Your task to perform on an android device: turn on javascript in the chrome app Image 0: 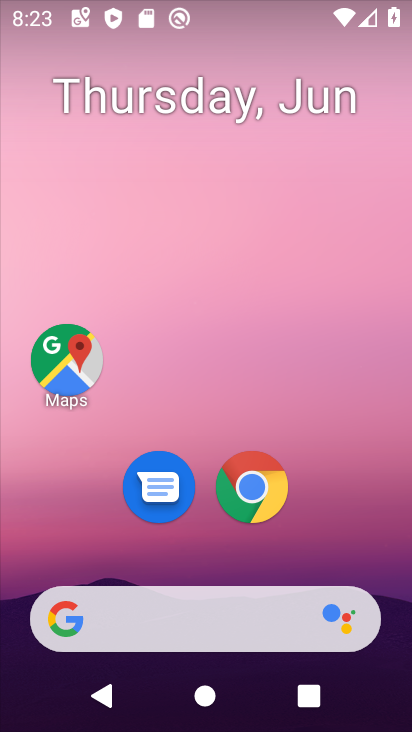
Step 0: drag from (188, 492) to (239, 10)
Your task to perform on an android device: turn on javascript in the chrome app Image 1: 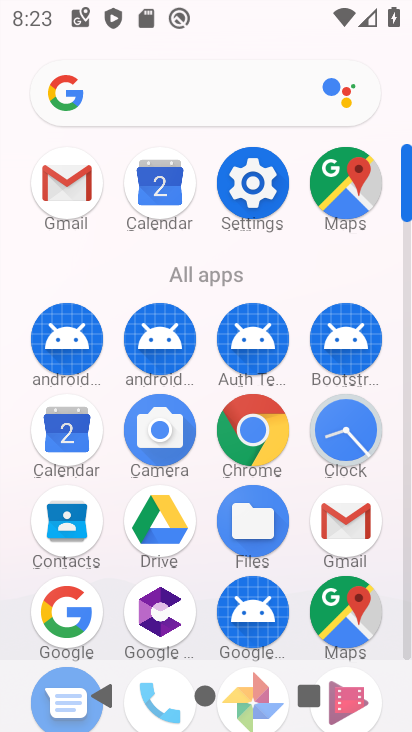
Step 1: drag from (209, 489) to (183, 162)
Your task to perform on an android device: turn on javascript in the chrome app Image 2: 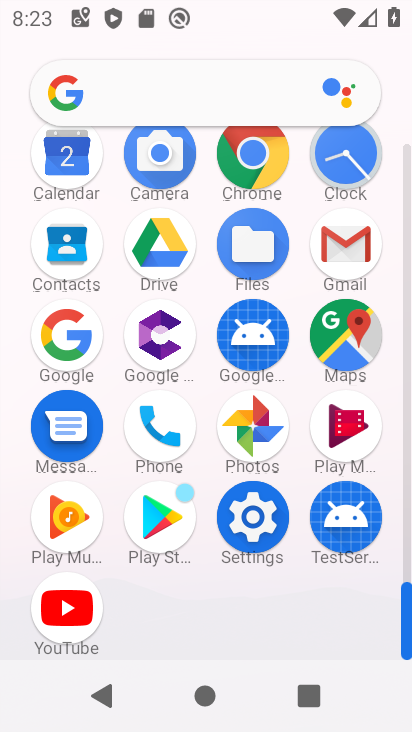
Step 2: drag from (217, 555) to (226, 202)
Your task to perform on an android device: turn on javascript in the chrome app Image 3: 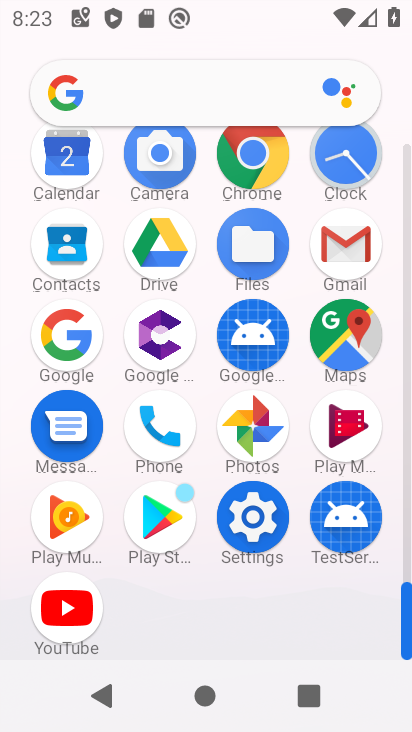
Step 3: click (256, 167)
Your task to perform on an android device: turn on javascript in the chrome app Image 4: 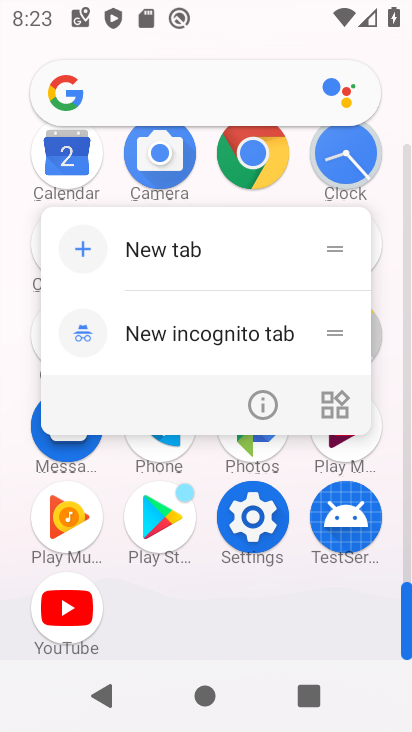
Step 4: click (262, 415)
Your task to perform on an android device: turn on javascript in the chrome app Image 5: 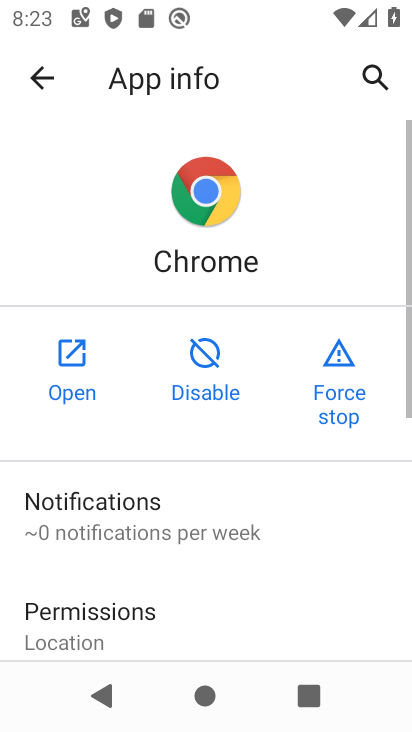
Step 5: drag from (214, 584) to (251, 331)
Your task to perform on an android device: turn on javascript in the chrome app Image 6: 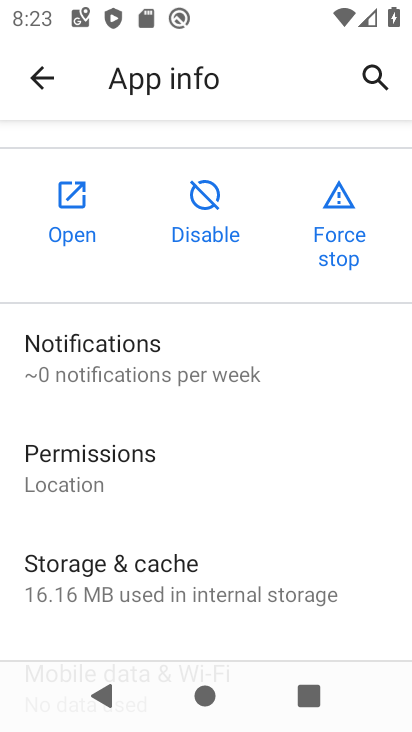
Step 6: click (33, 232)
Your task to perform on an android device: turn on javascript in the chrome app Image 7: 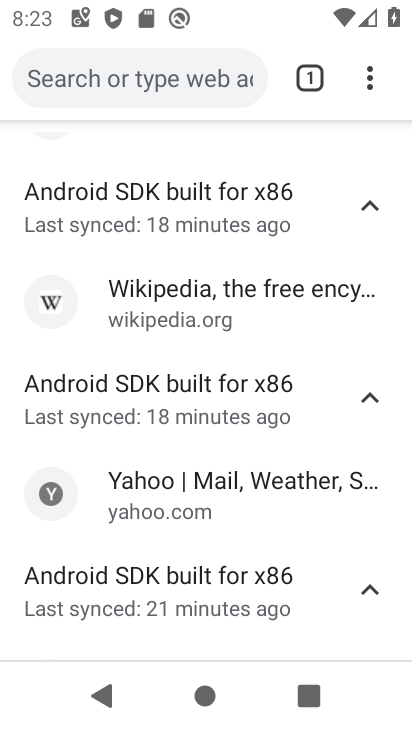
Step 7: drag from (371, 71) to (138, 549)
Your task to perform on an android device: turn on javascript in the chrome app Image 8: 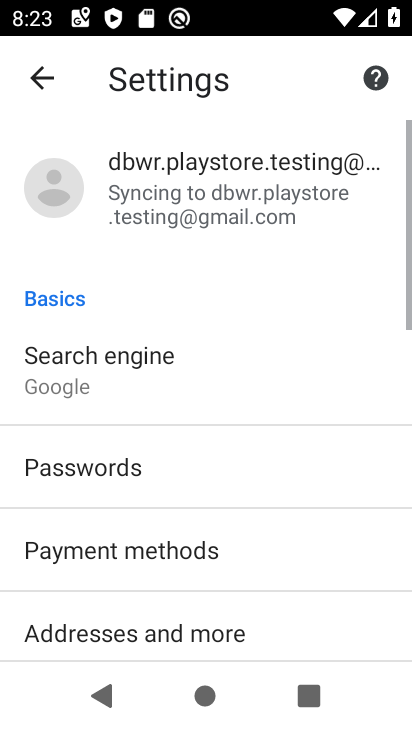
Step 8: drag from (219, 518) to (291, 3)
Your task to perform on an android device: turn on javascript in the chrome app Image 9: 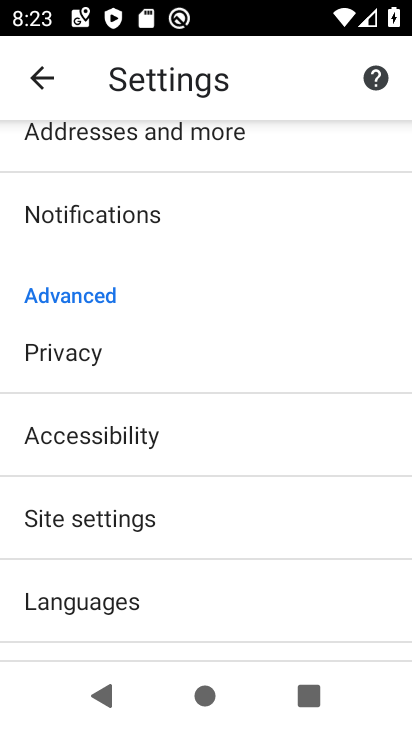
Step 9: click (125, 509)
Your task to perform on an android device: turn on javascript in the chrome app Image 10: 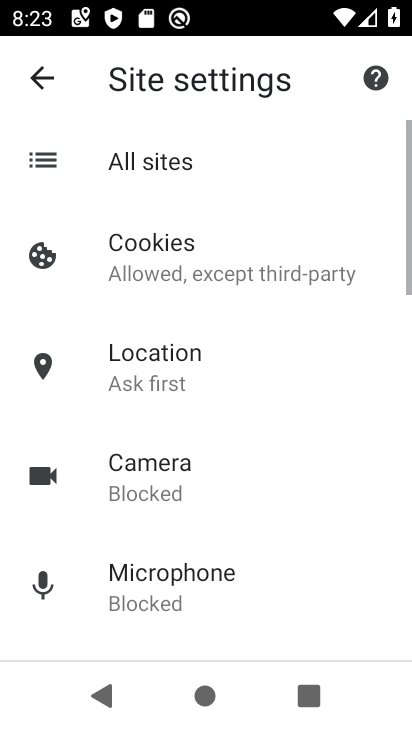
Step 10: drag from (225, 587) to (261, 93)
Your task to perform on an android device: turn on javascript in the chrome app Image 11: 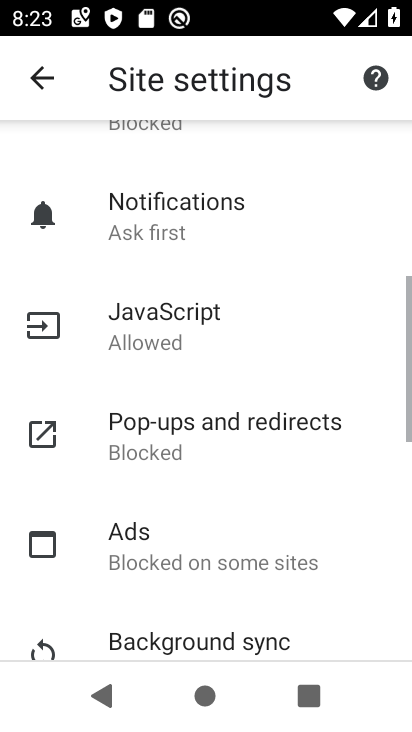
Step 11: click (191, 317)
Your task to perform on an android device: turn on javascript in the chrome app Image 12: 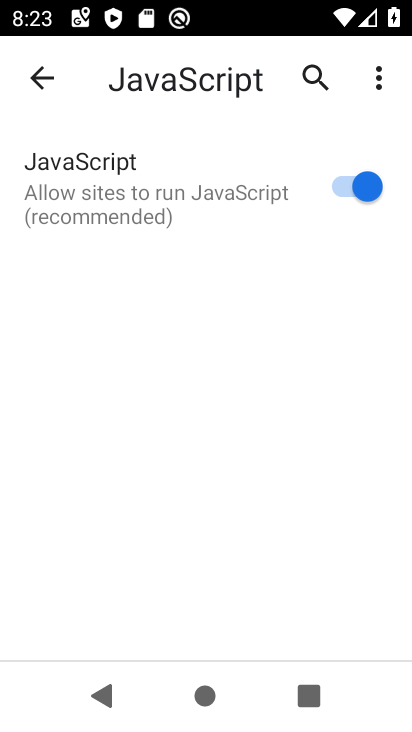
Step 12: task complete